Your task to perform on an android device: Search for sushi restaurants on Maps Image 0: 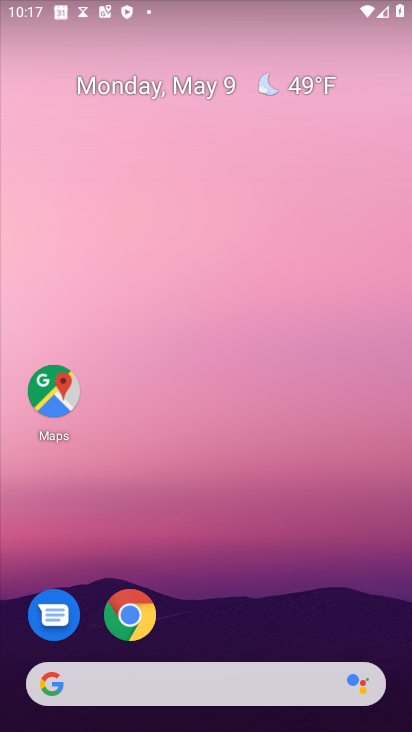
Step 0: click (69, 372)
Your task to perform on an android device: Search for sushi restaurants on Maps Image 1: 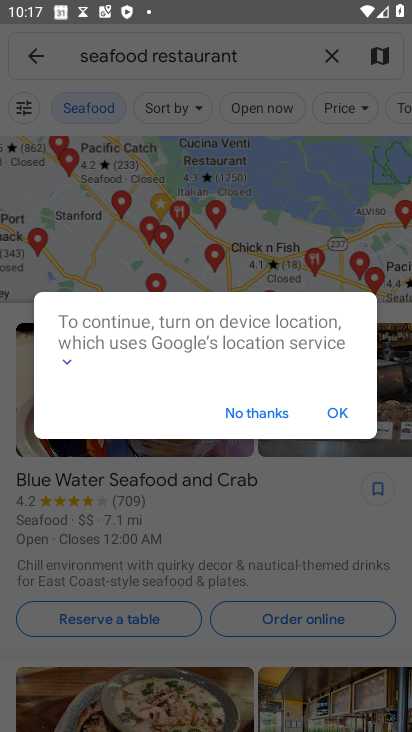
Step 1: click (329, 60)
Your task to perform on an android device: Search for sushi restaurants on Maps Image 2: 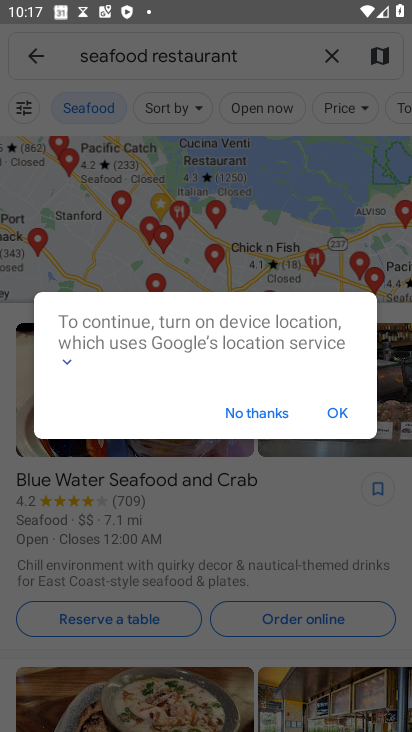
Step 2: click (329, 60)
Your task to perform on an android device: Search for sushi restaurants on Maps Image 3: 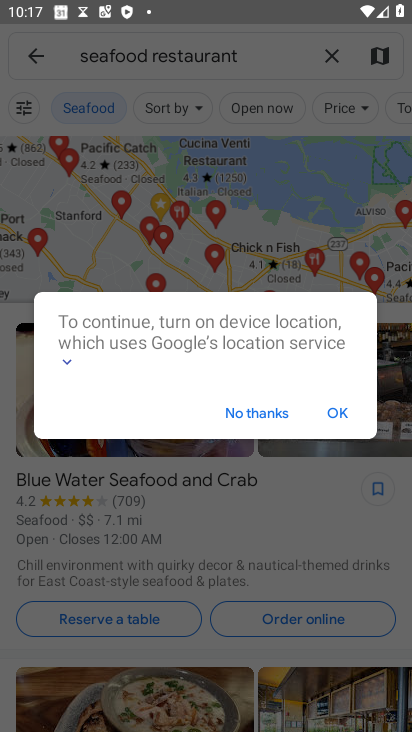
Step 3: press back button
Your task to perform on an android device: Search for sushi restaurants on Maps Image 4: 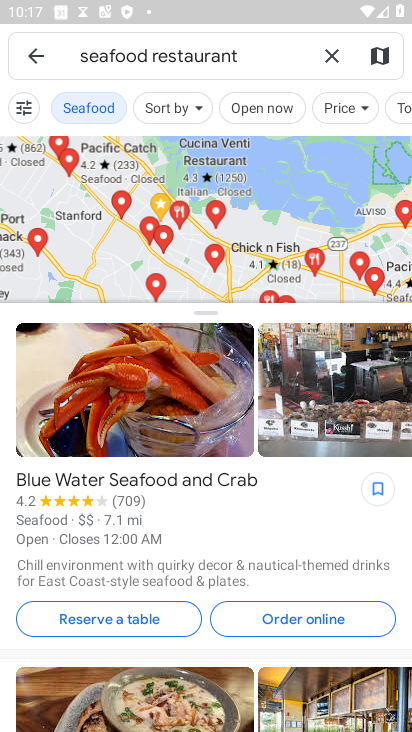
Step 4: click (331, 51)
Your task to perform on an android device: Search for sushi restaurants on Maps Image 5: 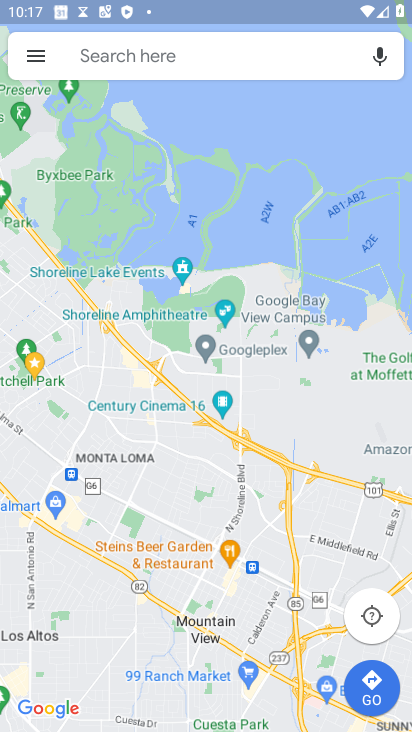
Step 5: click (255, 55)
Your task to perform on an android device: Search for sushi restaurants on Maps Image 6: 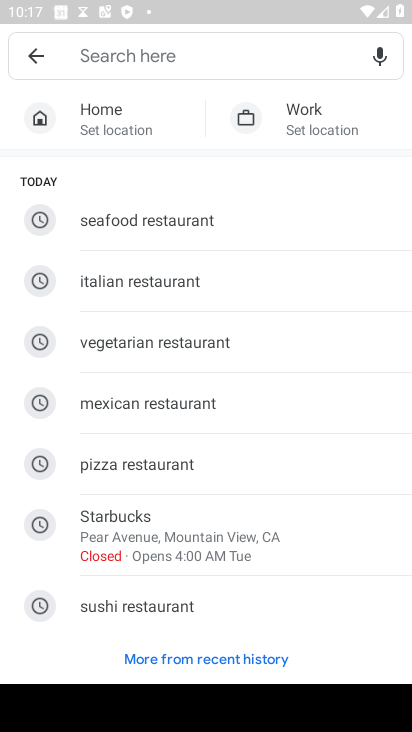
Step 6: click (165, 615)
Your task to perform on an android device: Search for sushi restaurants on Maps Image 7: 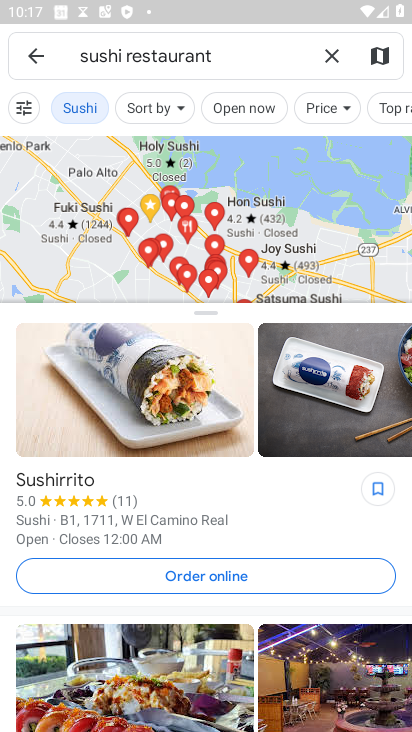
Step 7: task complete